Your task to perform on an android device: Search for Italian restaurants on Maps Image 0: 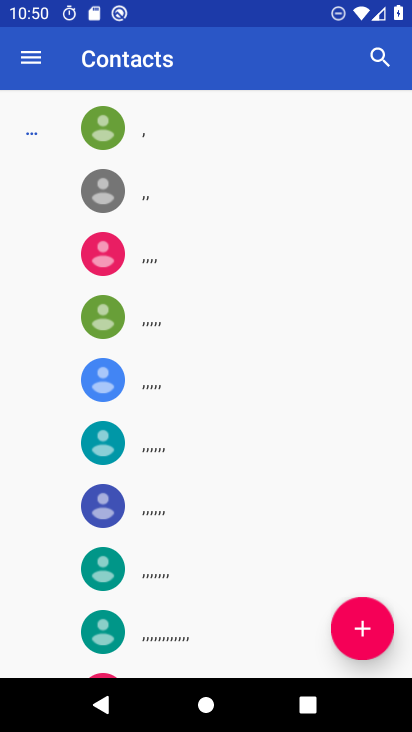
Step 0: press home button
Your task to perform on an android device: Search for Italian restaurants on Maps Image 1: 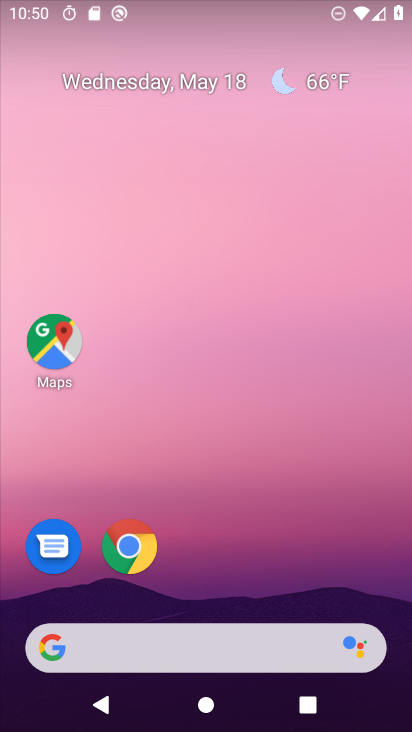
Step 1: click (51, 335)
Your task to perform on an android device: Search for Italian restaurants on Maps Image 2: 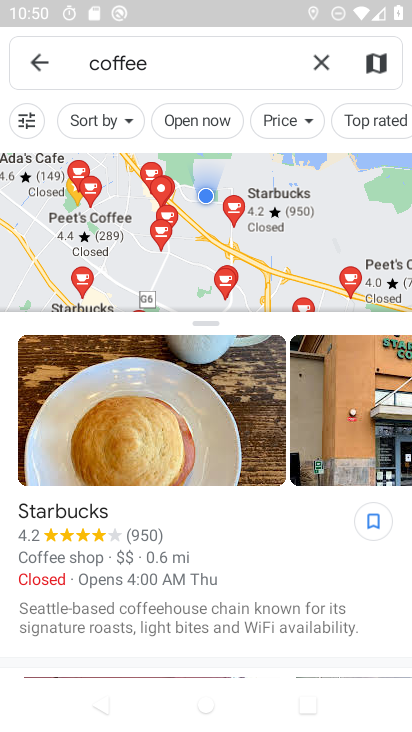
Step 2: click (324, 47)
Your task to perform on an android device: Search for Italian restaurants on Maps Image 3: 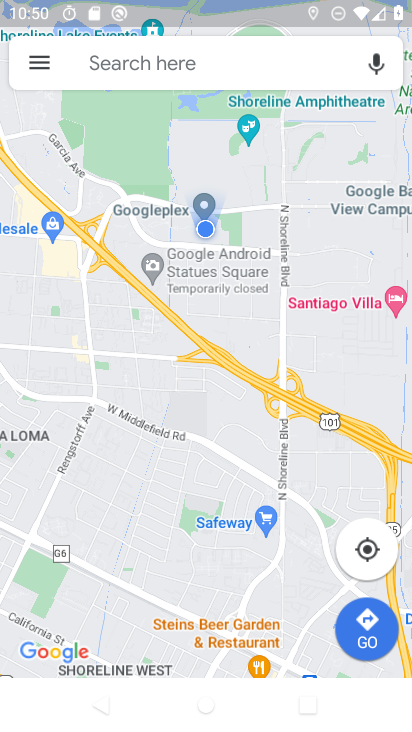
Step 3: click (158, 56)
Your task to perform on an android device: Search for Italian restaurants on Maps Image 4: 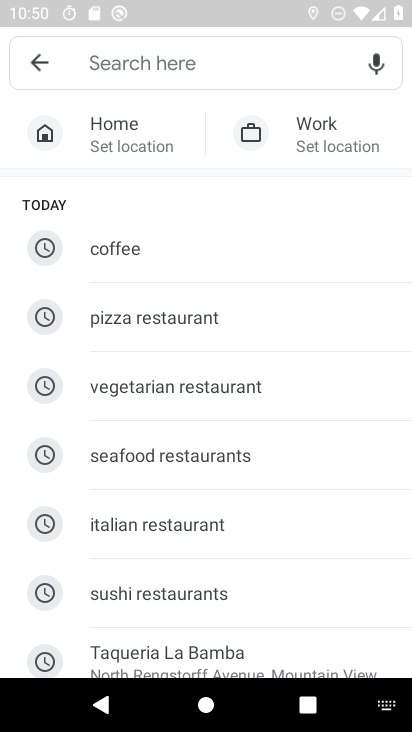
Step 4: click (139, 529)
Your task to perform on an android device: Search for Italian restaurants on Maps Image 5: 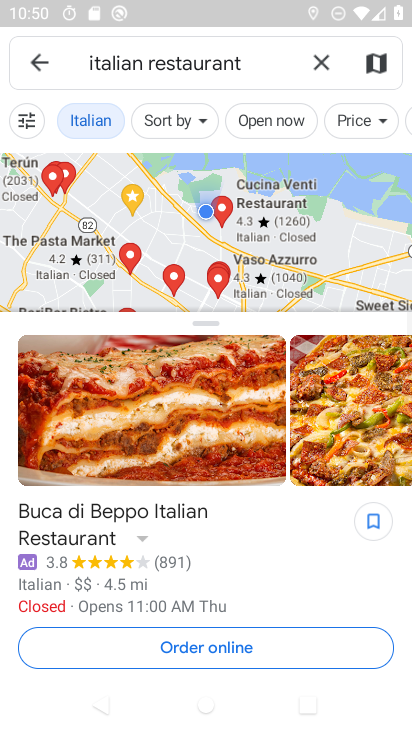
Step 5: task complete